Your task to perform on an android device: Open accessibility settings Image 0: 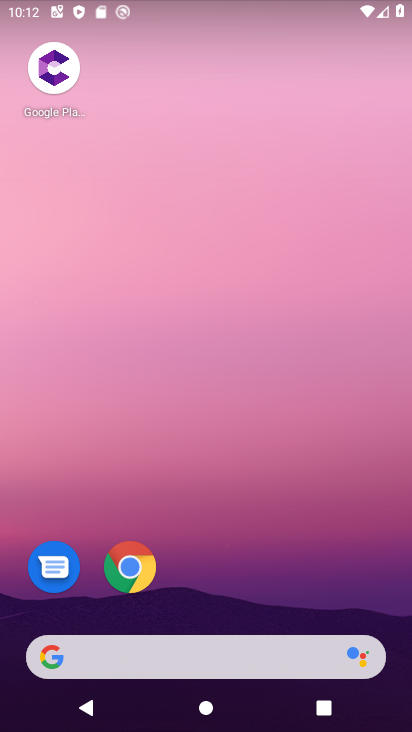
Step 0: drag from (255, 504) to (214, 0)
Your task to perform on an android device: Open accessibility settings Image 1: 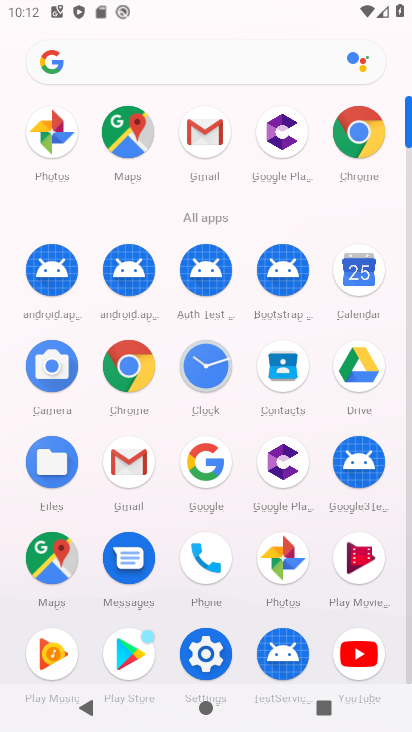
Step 1: click (201, 646)
Your task to perform on an android device: Open accessibility settings Image 2: 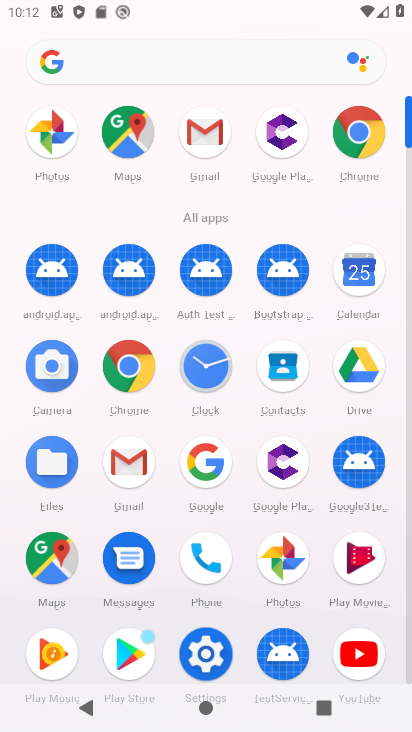
Step 2: click (203, 646)
Your task to perform on an android device: Open accessibility settings Image 3: 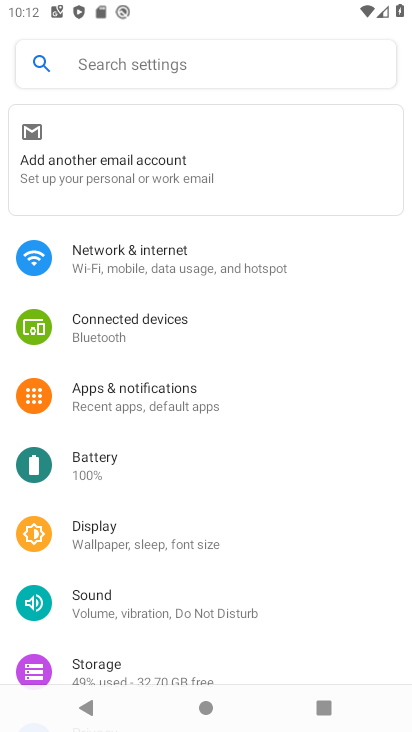
Step 3: drag from (186, 568) to (210, 202)
Your task to perform on an android device: Open accessibility settings Image 4: 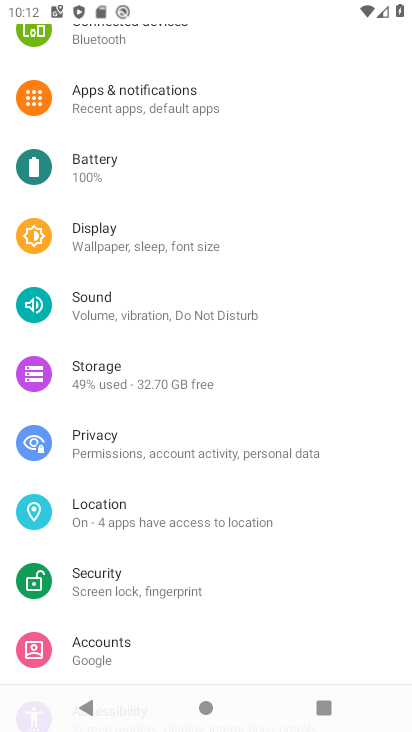
Step 4: drag from (226, 527) to (178, 190)
Your task to perform on an android device: Open accessibility settings Image 5: 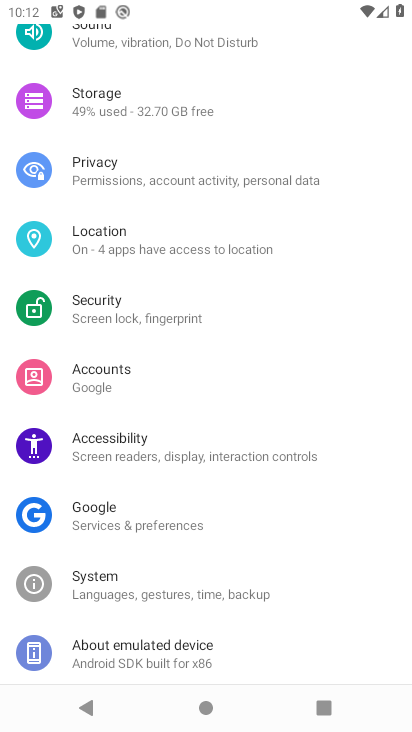
Step 5: drag from (217, 374) to (214, 206)
Your task to perform on an android device: Open accessibility settings Image 6: 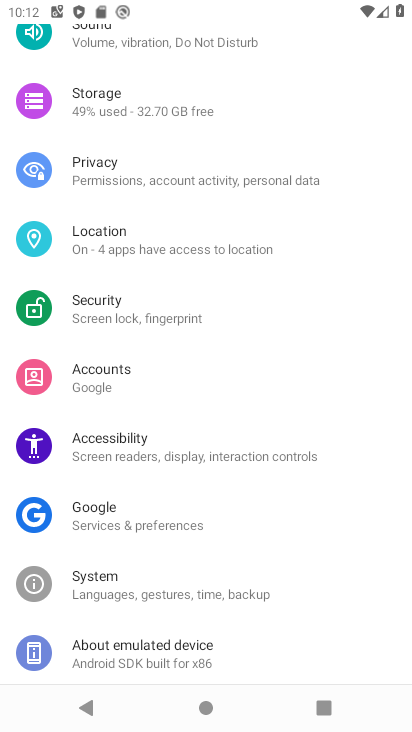
Step 6: drag from (219, 481) to (276, 249)
Your task to perform on an android device: Open accessibility settings Image 7: 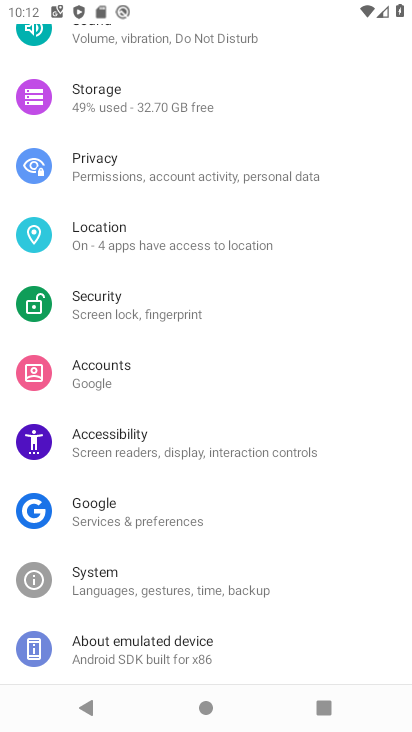
Step 7: click (109, 434)
Your task to perform on an android device: Open accessibility settings Image 8: 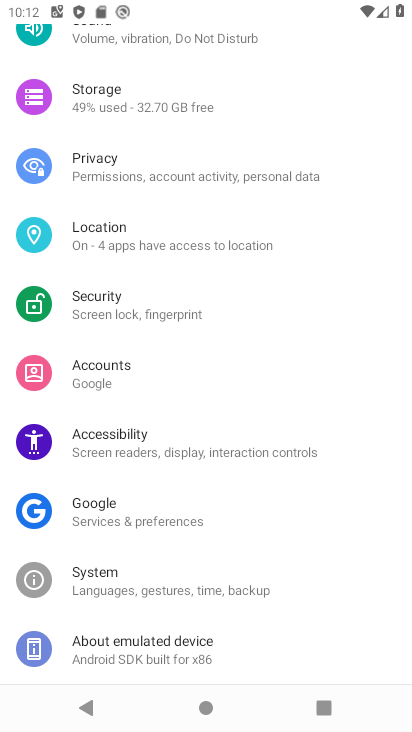
Step 8: click (109, 434)
Your task to perform on an android device: Open accessibility settings Image 9: 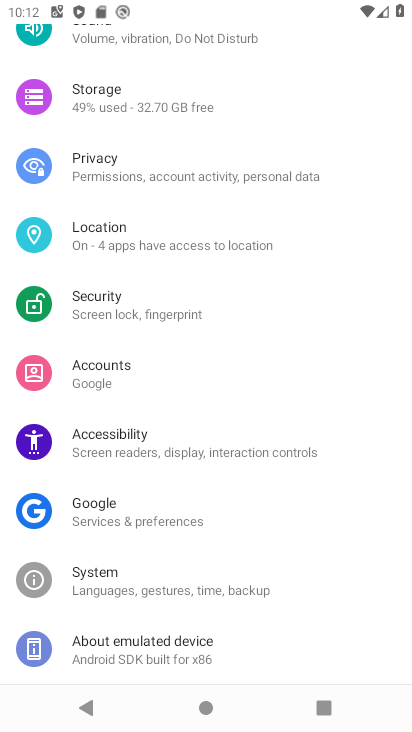
Step 9: click (112, 442)
Your task to perform on an android device: Open accessibility settings Image 10: 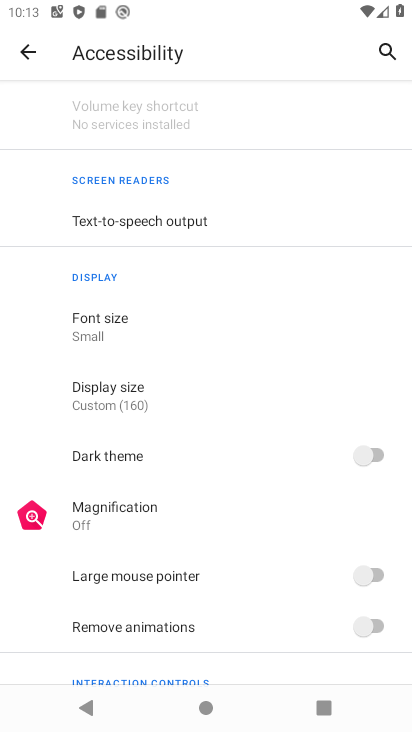
Step 10: task complete